Your task to perform on an android device: turn off wifi Image 0: 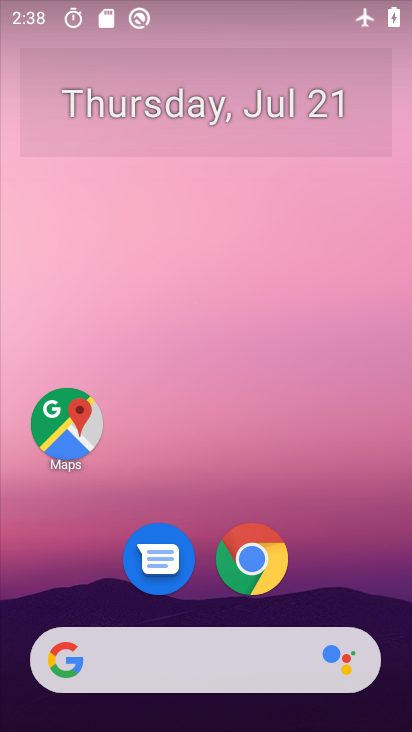
Step 0: drag from (380, 560) to (384, 70)
Your task to perform on an android device: turn off wifi Image 1: 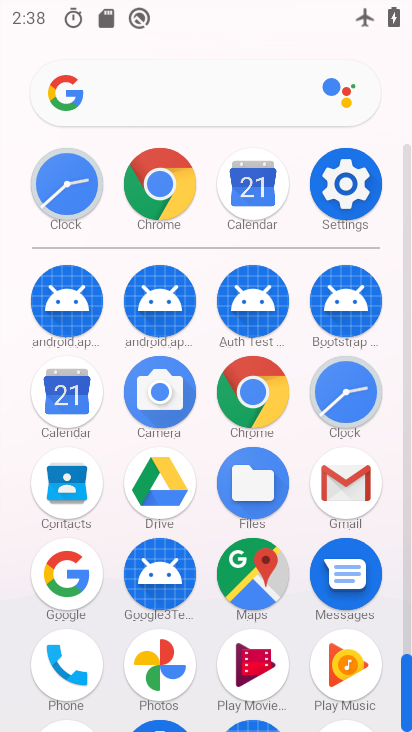
Step 1: click (354, 182)
Your task to perform on an android device: turn off wifi Image 2: 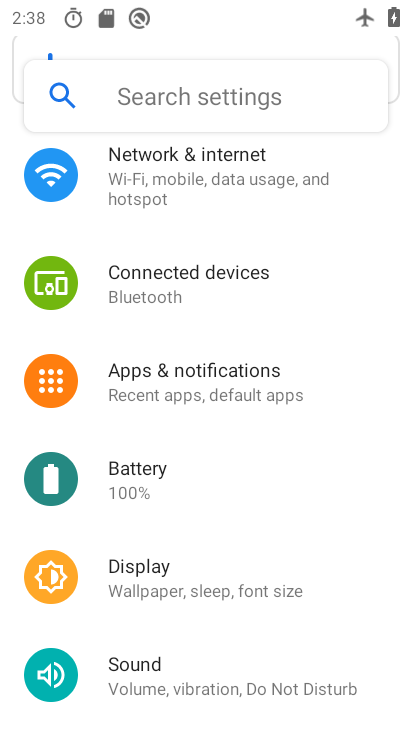
Step 2: drag from (348, 462) to (353, 354)
Your task to perform on an android device: turn off wifi Image 3: 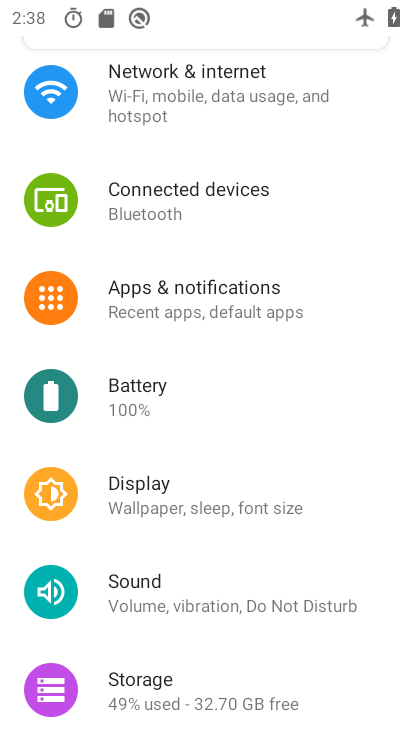
Step 3: drag from (357, 455) to (358, 377)
Your task to perform on an android device: turn off wifi Image 4: 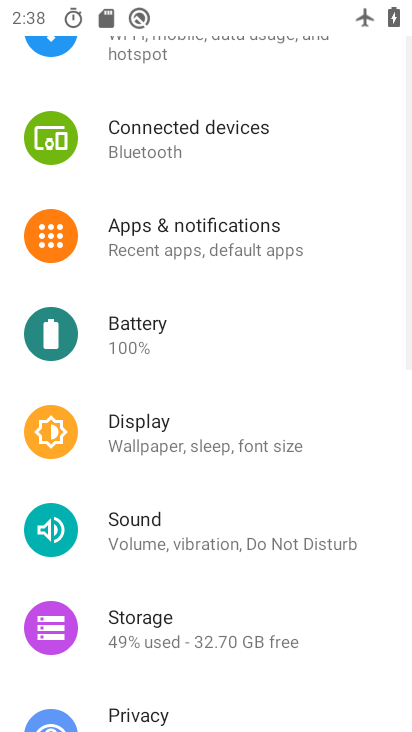
Step 4: drag from (355, 497) to (351, 378)
Your task to perform on an android device: turn off wifi Image 5: 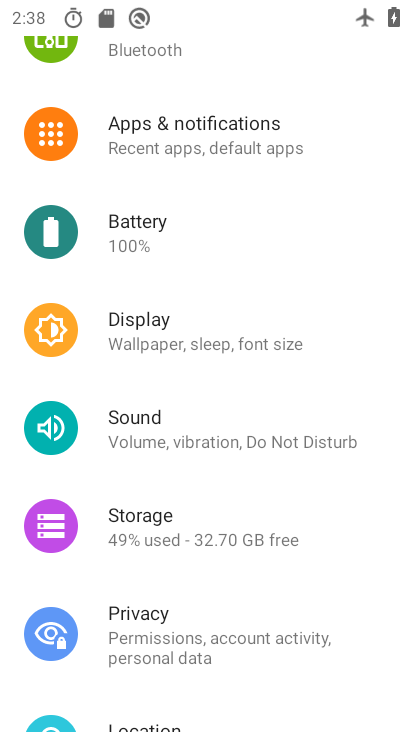
Step 5: drag from (351, 545) to (352, 415)
Your task to perform on an android device: turn off wifi Image 6: 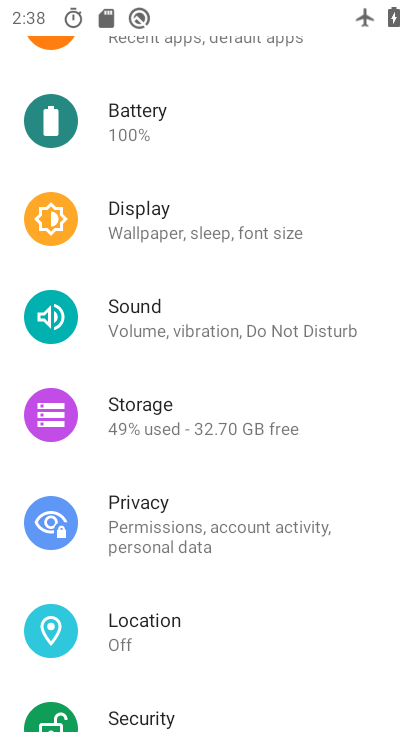
Step 6: drag from (352, 547) to (353, 448)
Your task to perform on an android device: turn off wifi Image 7: 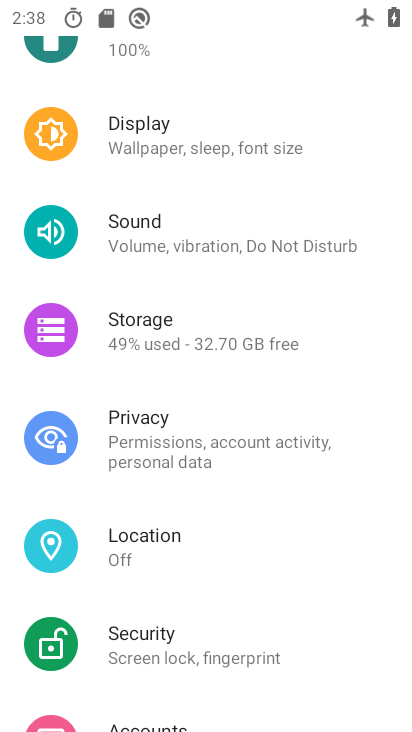
Step 7: drag from (348, 536) to (348, 434)
Your task to perform on an android device: turn off wifi Image 8: 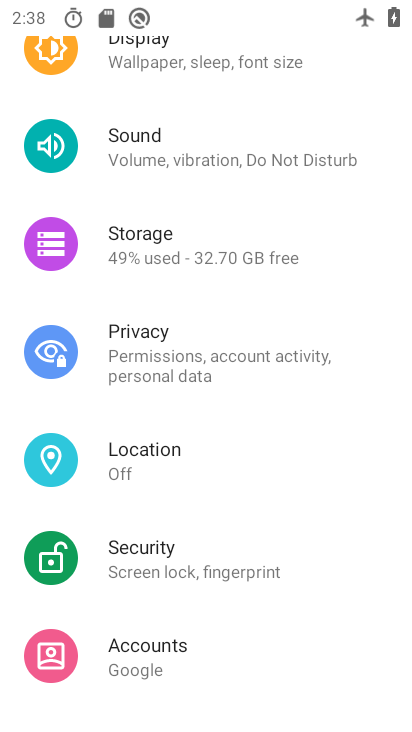
Step 8: drag from (346, 557) to (343, 377)
Your task to perform on an android device: turn off wifi Image 9: 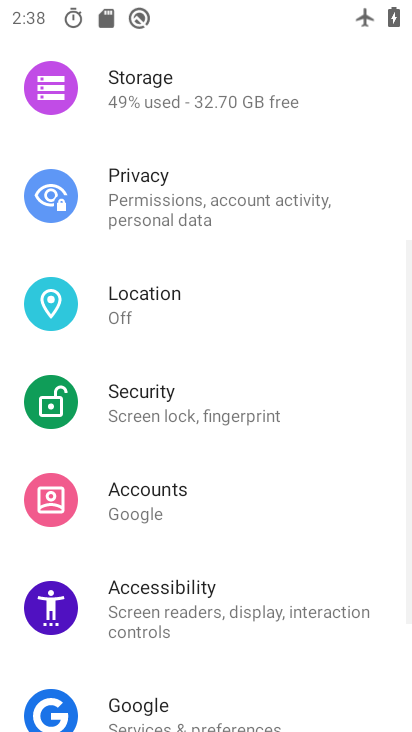
Step 9: drag from (340, 492) to (345, 302)
Your task to perform on an android device: turn off wifi Image 10: 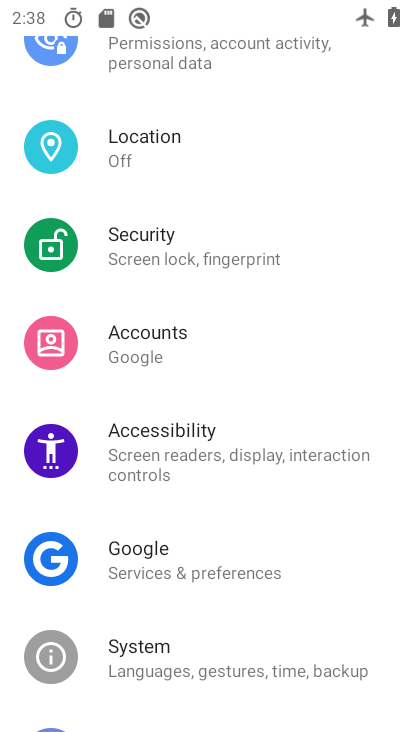
Step 10: drag from (346, 250) to (349, 360)
Your task to perform on an android device: turn off wifi Image 11: 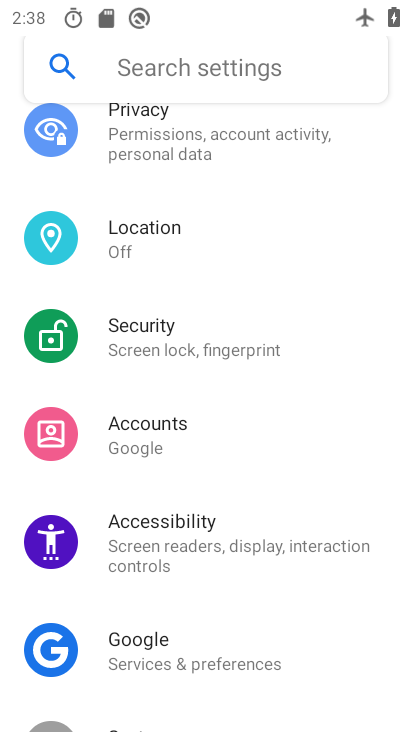
Step 11: drag from (349, 242) to (353, 361)
Your task to perform on an android device: turn off wifi Image 12: 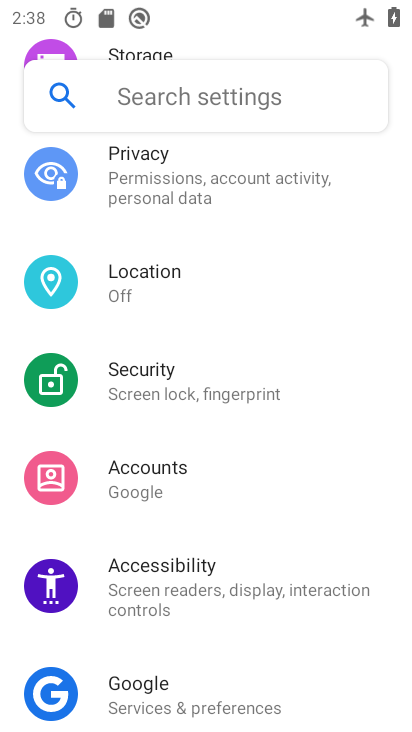
Step 12: drag from (352, 226) to (352, 330)
Your task to perform on an android device: turn off wifi Image 13: 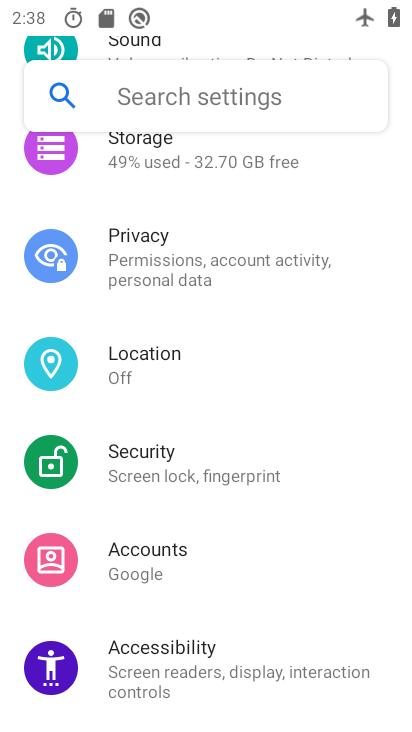
Step 13: drag from (356, 235) to (346, 365)
Your task to perform on an android device: turn off wifi Image 14: 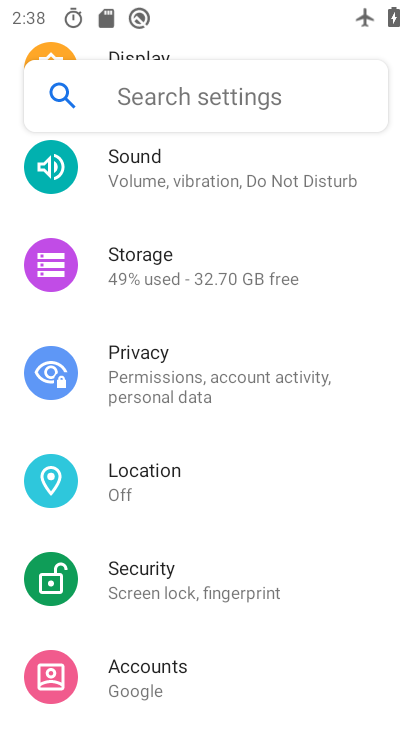
Step 14: drag from (344, 252) to (346, 384)
Your task to perform on an android device: turn off wifi Image 15: 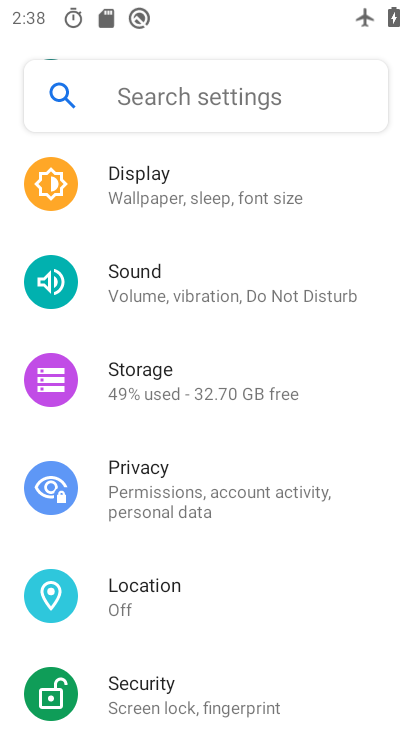
Step 15: drag from (369, 209) to (370, 346)
Your task to perform on an android device: turn off wifi Image 16: 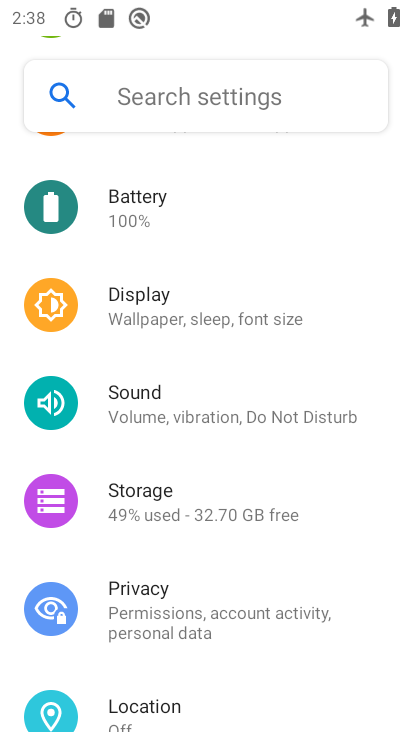
Step 16: drag from (365, 211) to (365, 371)
Your task to perform on an android device: turn off wifi Image 17: 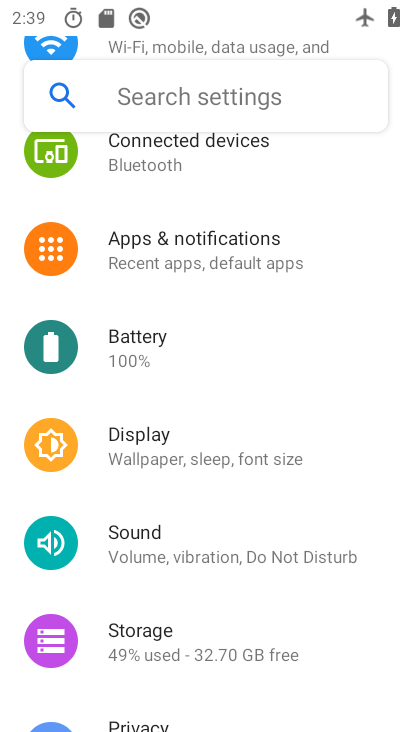
Step 17: drag from (345, 194) to (346, 362)
Your task to perform on an android device: turn off wifi Image 18: 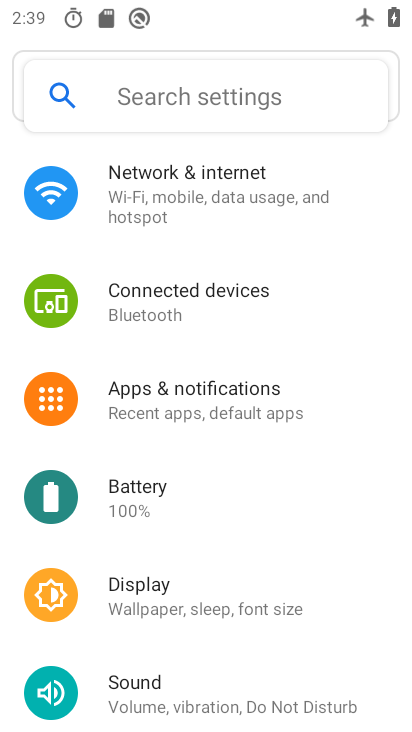
Step 18: click (316, 188)
Your task to perform on an android device: turn off wifi Image 19: 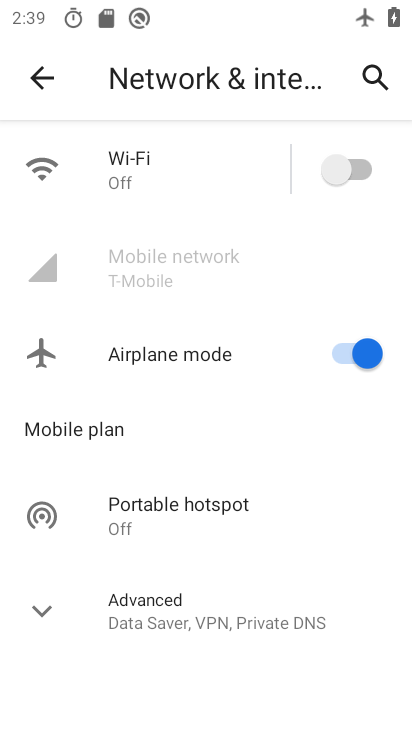
Step 19: task complete